Your task to perform on an android device: Go to Maps Image 0: 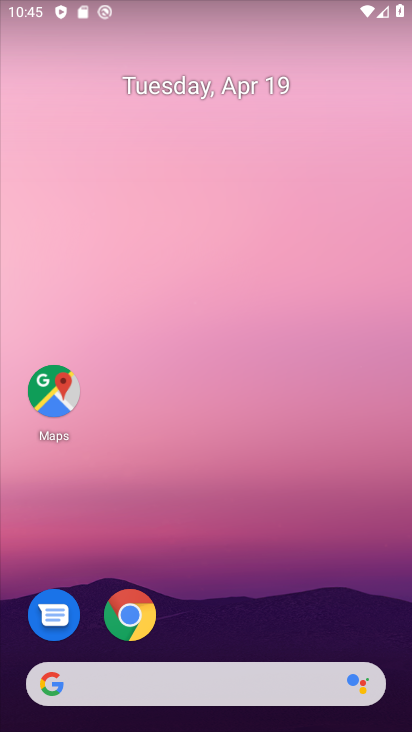
Step 0: click (44, 402)
Your task to perform on an android device: Go to Maps Image 1: 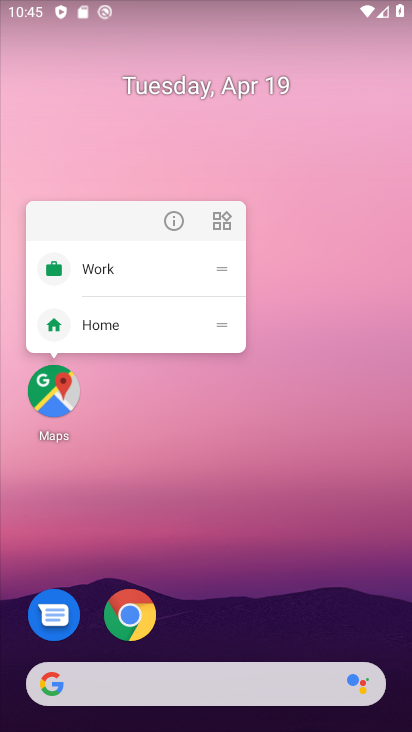
Step 1: click (44, 402)
Your task to perform on an android device: Go to Maps Image 2: 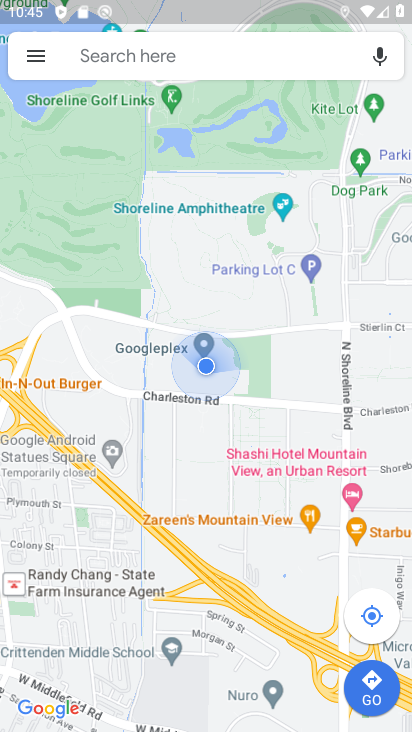
Step 2: task complete